Your task to perform on an android device: search for console tables on article.com Image 0: 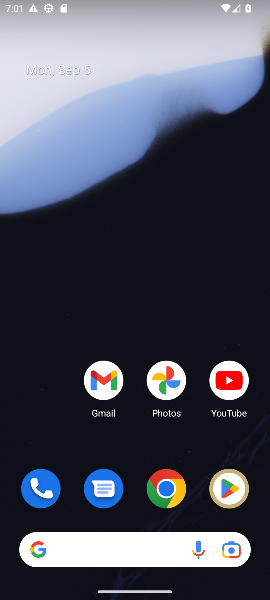
Step 0: click (178, 493)
Your task to perform on an android device: search for console tables on article.com Image 1: 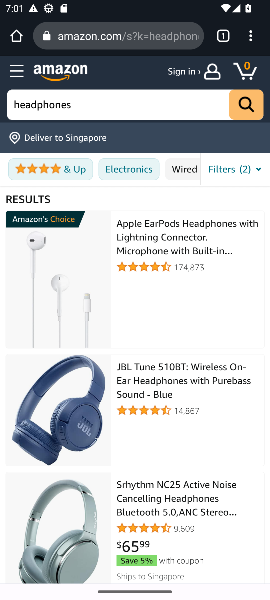
Step 1: click (124, 35)
Your task to perform on an android device: search for console tables on article.com Image 2: 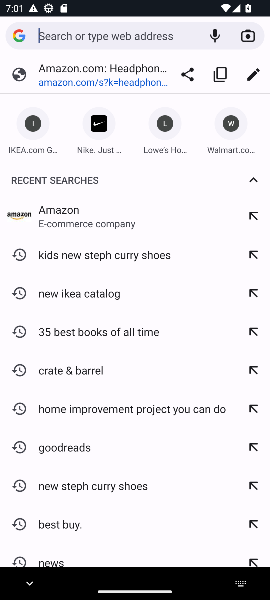
Step 2: type "article.com"
Your task to perform on an android device: search for console tables on article.com Image 3: 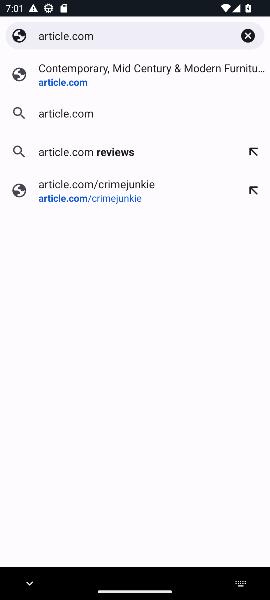
Step 3: press enter
Your task to perform on an android device: search for console tables on article.com Image 4: 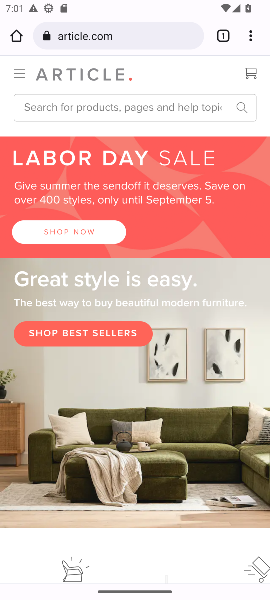
Step 4: click (123, 113)
Your task to perform on an android device: search for console tables on article.com Image 5: 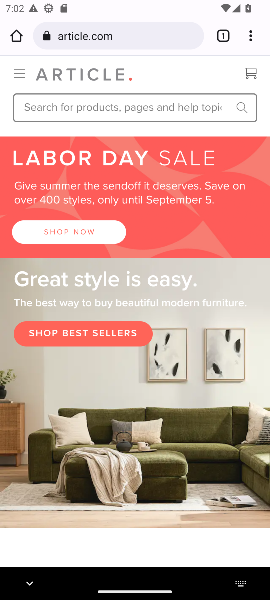
Step 5: type "console tables"
Your task to perform on an android device: search for console tables on article.com Image 6: 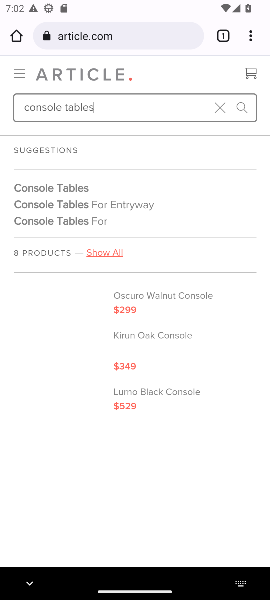
Step 6: press enter
Your task to perform on an android device: search for console tables on article.com Image 7: 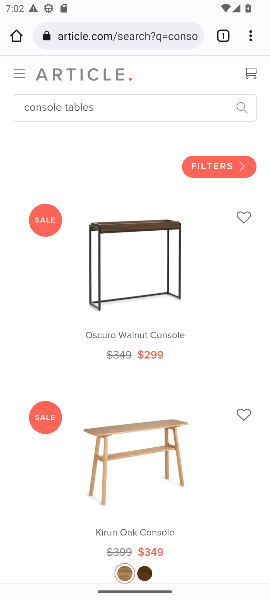
Step 7: drag from (155, 365) to (127, 162)
Your task to perform on an android device: search for console tables on article.com Image 8: 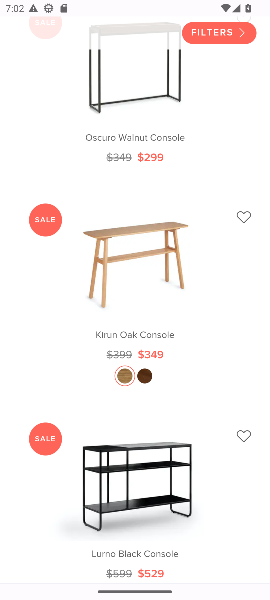
Step 8: drag from (133, 512) to (133, 269)
Your task to perform on an android device: search for console tables on article.com Image 9: 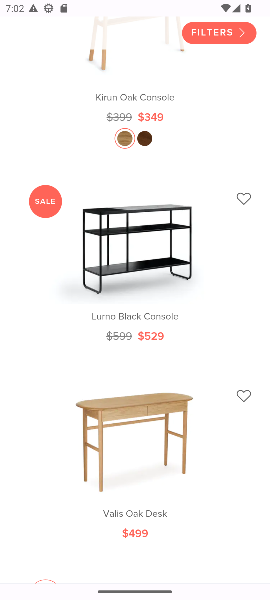
Step 9: drag from (130, 358) to (116, 185)
Your task to perform on an android device: search for console tables on article.com Image 10: 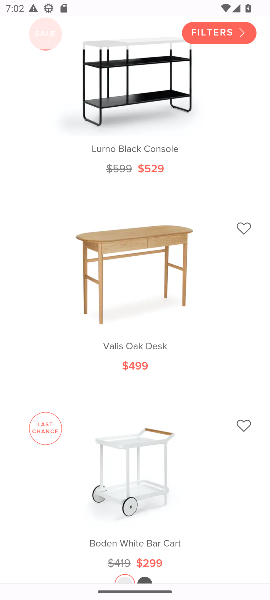
Step 10: drag from (202, 335) to (194, 206)
Your task to perform on an android device: search for console tables on article.com Image 11: 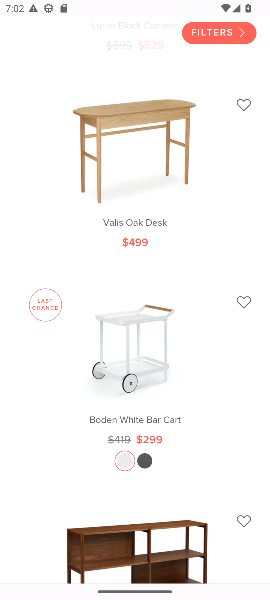
Step 11: drag from (187, 209) to (187, 170)
Your task to perform on an android device: search for console tables on article.com Image 12: 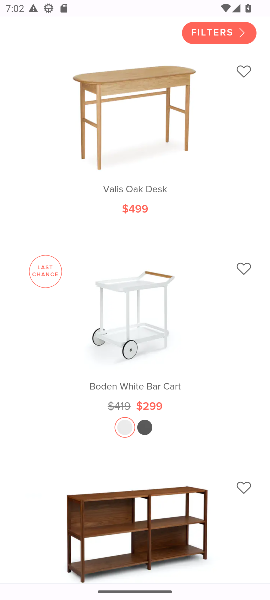
Step 12: drag from (147, 405) to (131, 229)
Your task to perform on an android device: search for console tables on article.com Image 13: 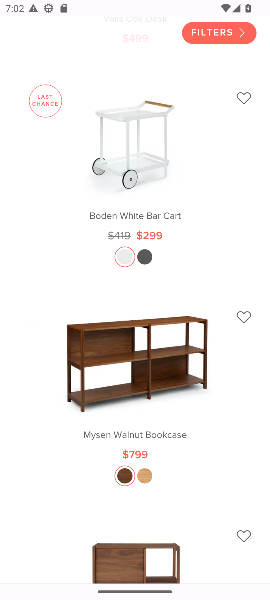
Step 13: drag from (225, 507) to (171, 241)
Your task to perform on an android device: search for console tables on article.com Image 14: 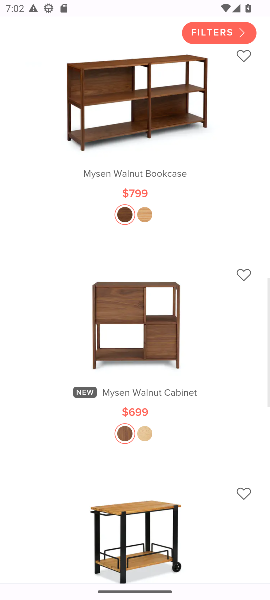
Step 14: drag from (179, 414) to (170, 280)
Your task to perform on an android device: search for console tables on article.com Image 15: 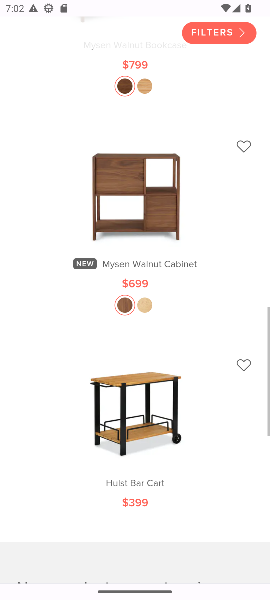
Step 15: drag from (85, 376) to (77, 228)
Your task to perform on an android device: search for console tables on article.com Image 16: 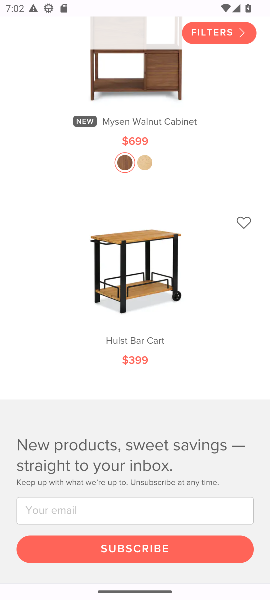
Step 16: drag from (140, 342) to (191, 517)
Your task to perform on an android device: search for console tables on article.com Image 17: 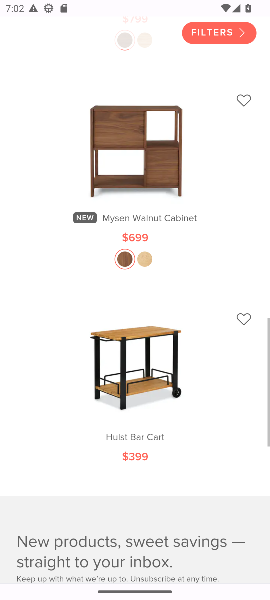
Step 17: drag from (157, 183) to (254, 389)
Your task to perform on an android device: search for console tables on article.com Image 18: 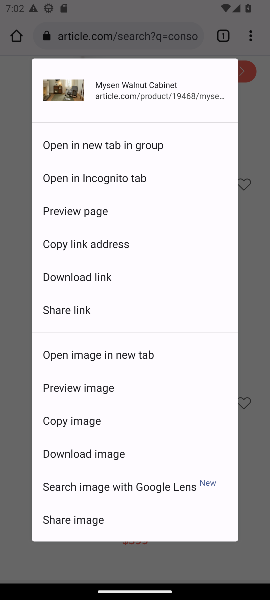
Step 18: click (255, 211)
Your task to perform on an android device: search for console tables on article.com Image 19: 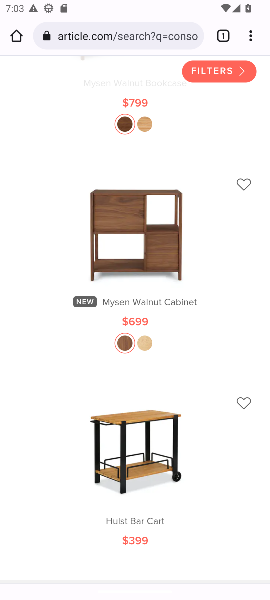
Step 19: task complete